Your task to perform on an android device: Show me popular games on the Play Store Image 0: 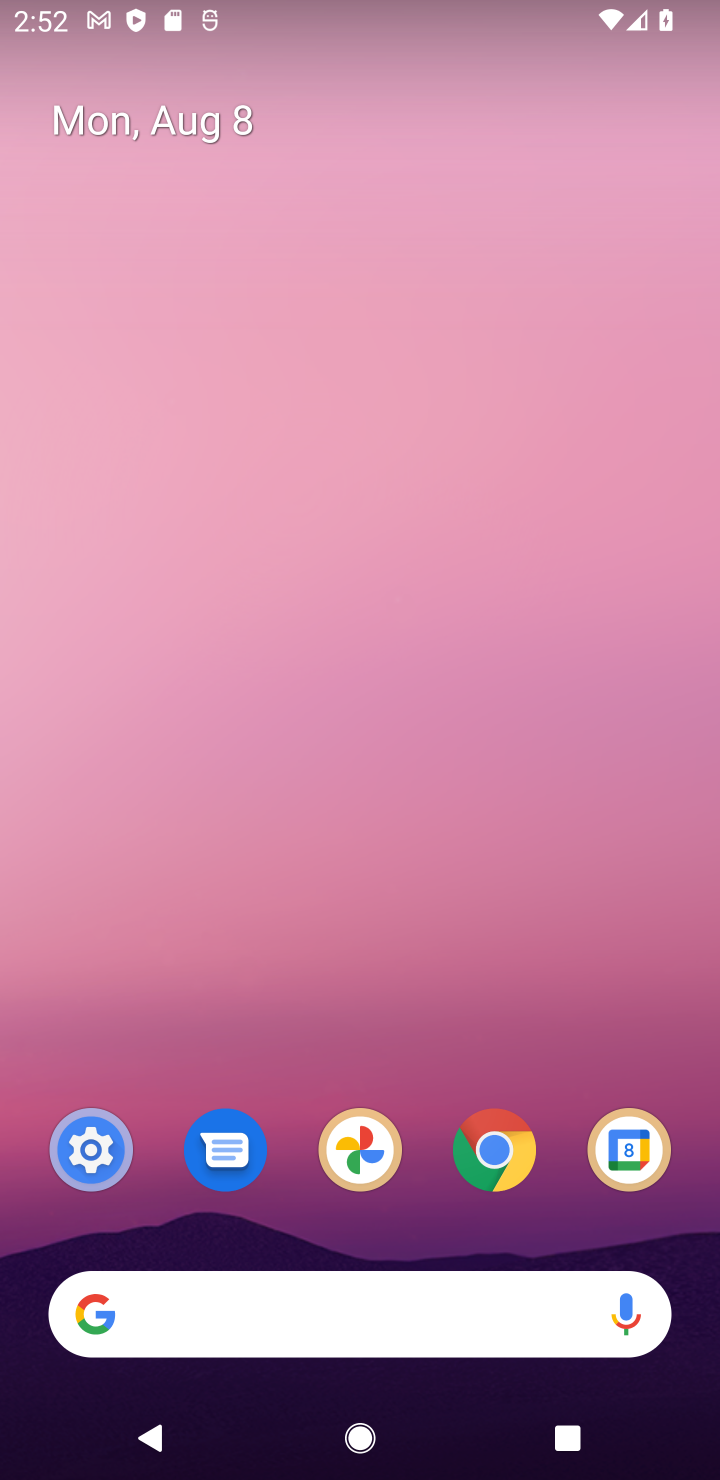
Step 0: drag from (423, 1255) to (352, 491)
Your task to perform on an android device: Show me popular games on the Play Store Image 1: 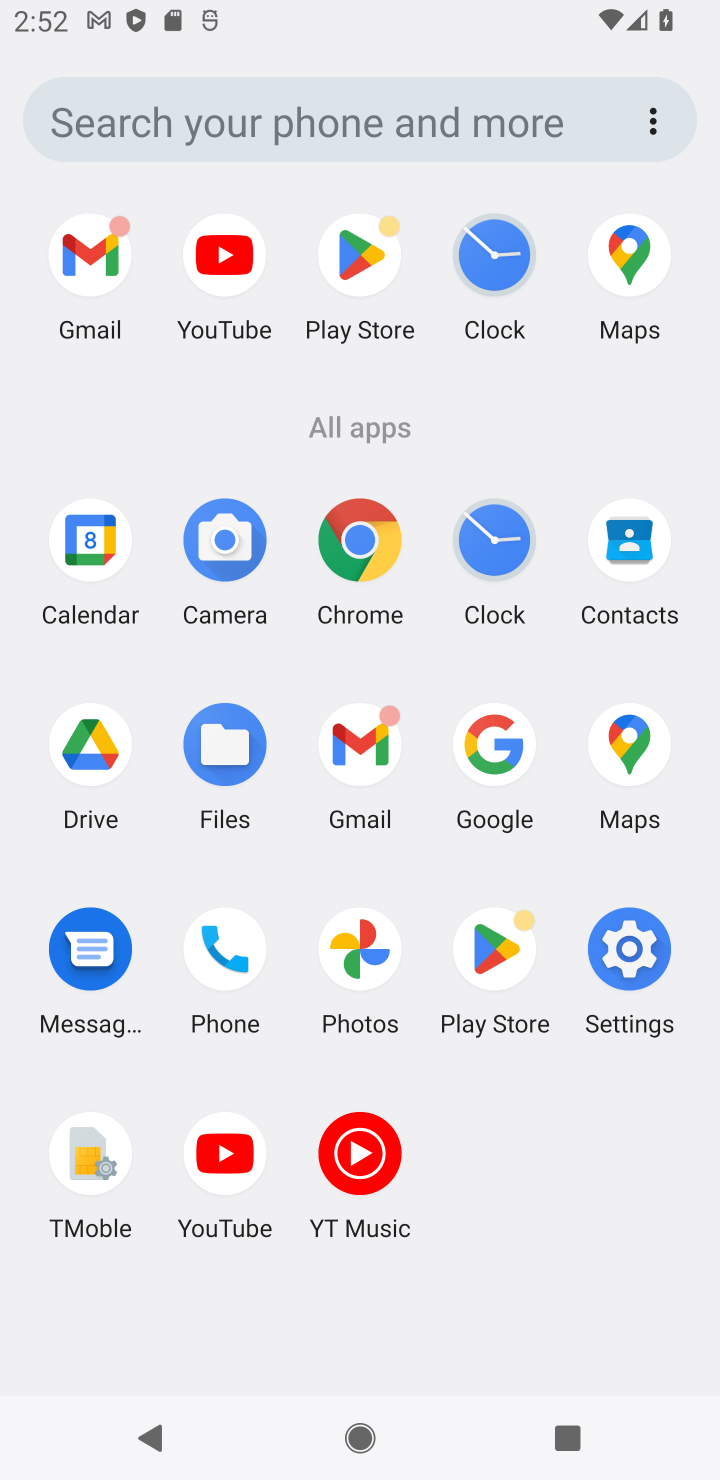
Step 1: click (359, 297)
Your task to perform on an android device: Show me popular games on the Play Store Image 2: 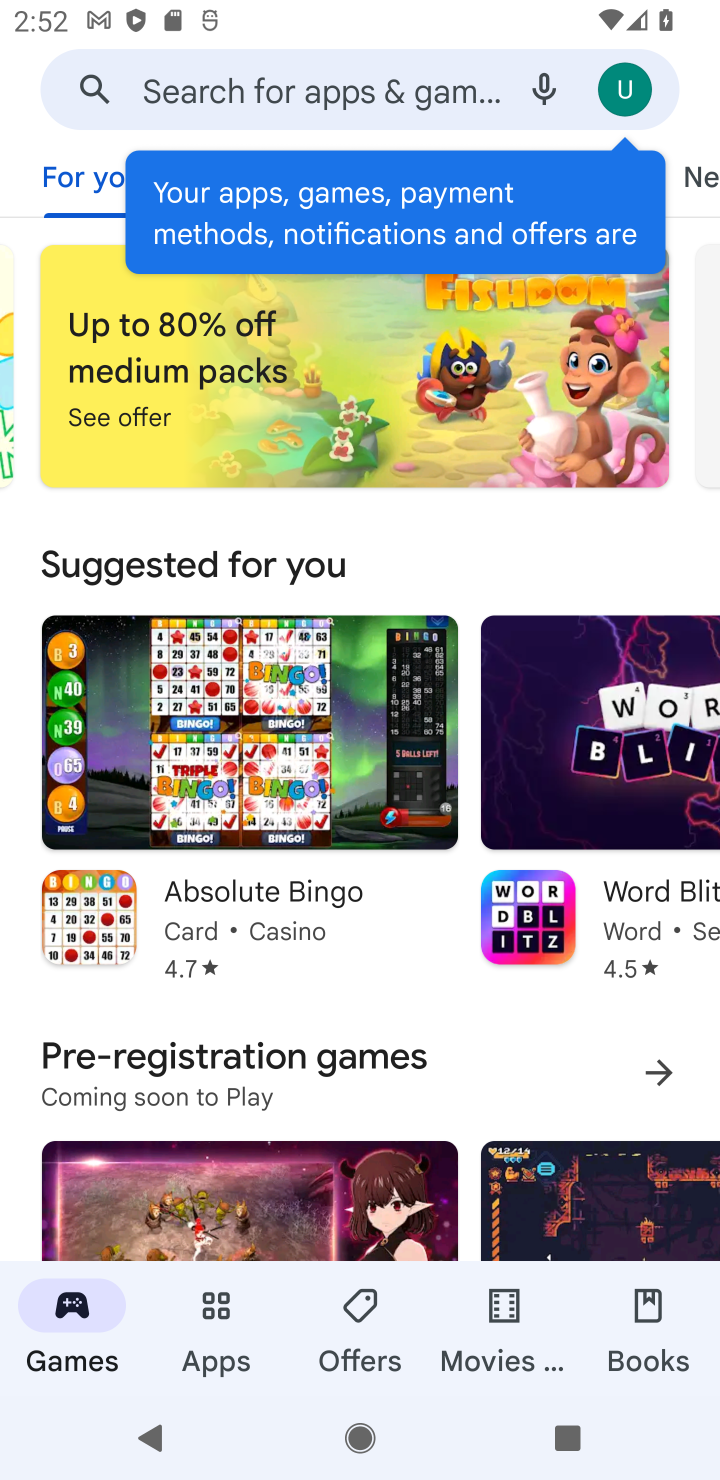
Step 2: task complete